Your task to perform on an android device: Toggle the flashlight Image 0: 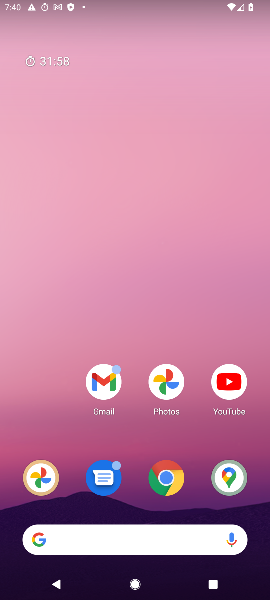
Step 0: drag from (139, 450) to (174, 138)
Your task to perform on an android device: Toggle the flashlight Image 1: 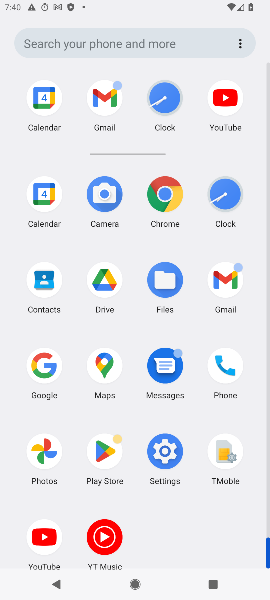
Step 1: click (163, 450)
Your task to perform on an android device: Toggle the flashlight Image 2: 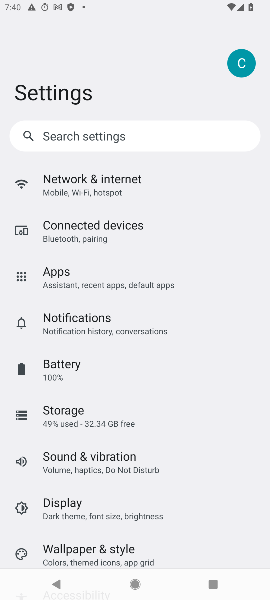
Step 2: click (75, 130)
Your task to perform on an android device: Toggle the flashlight Image 3: 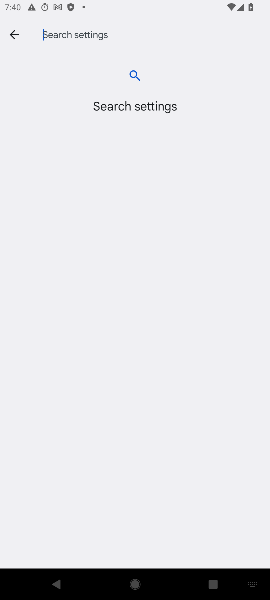
Step 3: click (134, 71)
Your task to perform on an android device: Toggle the flashlight Image 4: 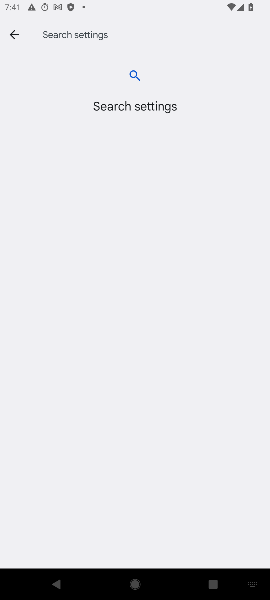
Step 4: press home button
Your task to perform on an android device: Toggle the flashlight Image 5: 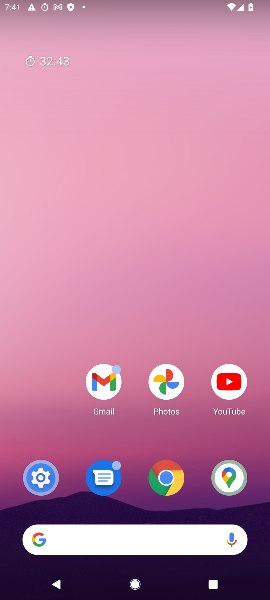
Step 5: click (131, 119)
Your task to perform on an android device: Toggle the flashlight Image 6: 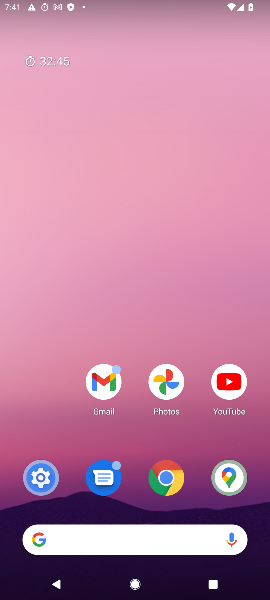
Step 6: click (21, 31)
Your task to perform on an android device: Toggle the flashlight Image 7: 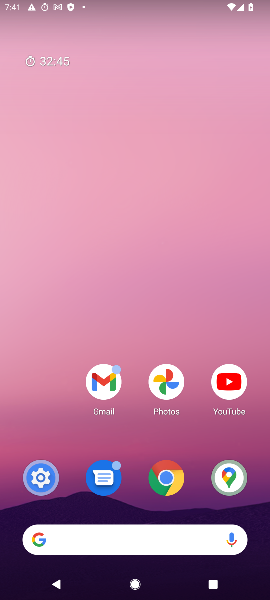
Step 7: click (24, 469)
Your task to perform on an android device: Toggle the flashlight Image 8: 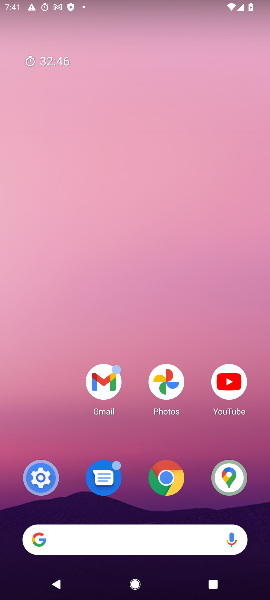
Step 8: click (38, 474)
Your task to perform on an android device: Toggle the flashlight Image 9: 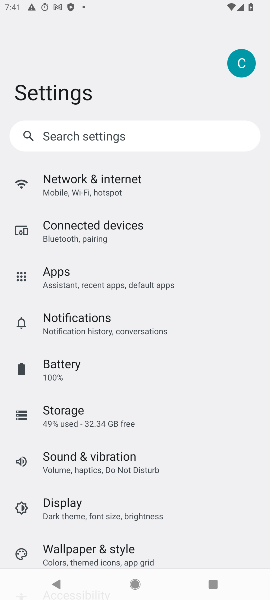
Step 9: click (93, 137)
Your task to perform on an android device: Toggle the flashlight Image 10: 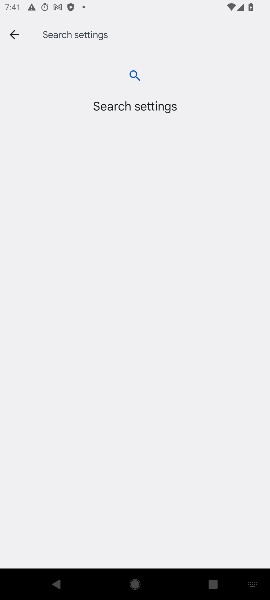
Step 10: type "flashlight"
Your task to perform on an android device: Toggle the flashlight Image 11: 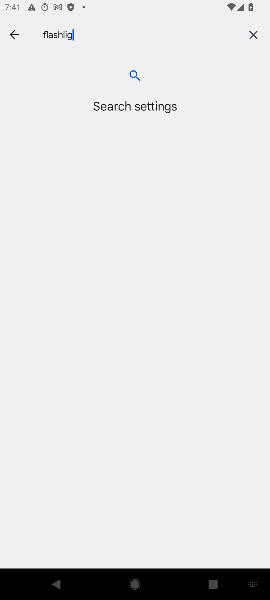
Step 11: type ""
Your task to perform on an android device: Toggle the flashlight Image 12: 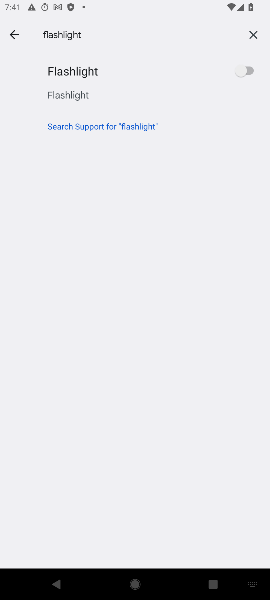
Step 12: click (244, 69)
Your task to perform on an android device: Toggle the flashlight Image 13: 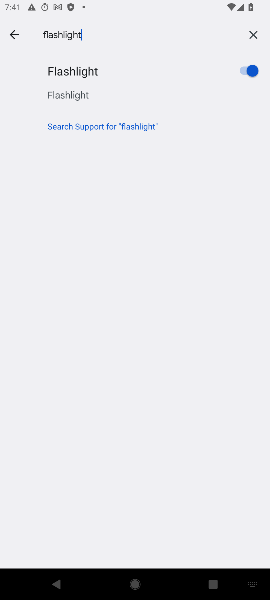
Step 13: task complete